Your task to perform on an android device: turn on the 12-hour format for clock Image 0: 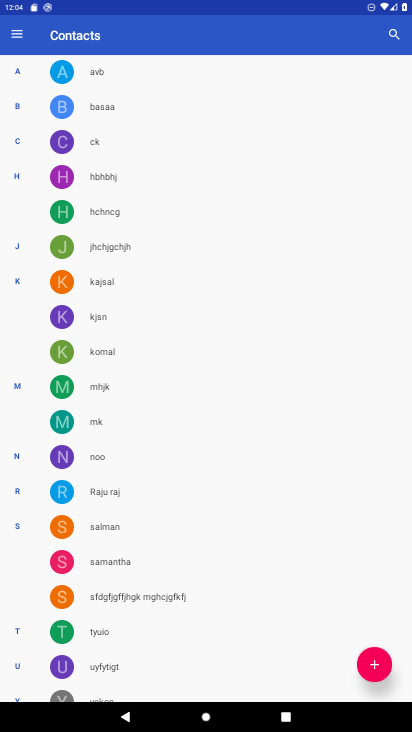
Step 0: press home button
Your task to perform on an android device: turn on the 12-hour format for clock Image 1: 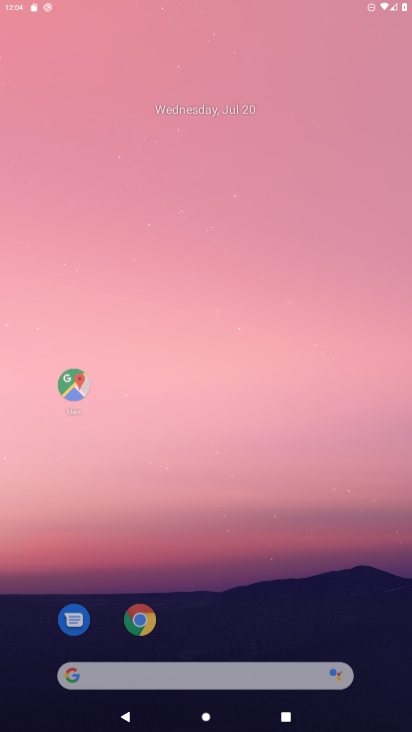
Step 1: drag from (316, 465) to (366, 28)
Your task to perform on an android device: turn on the 12-hour format for clock Image 2: 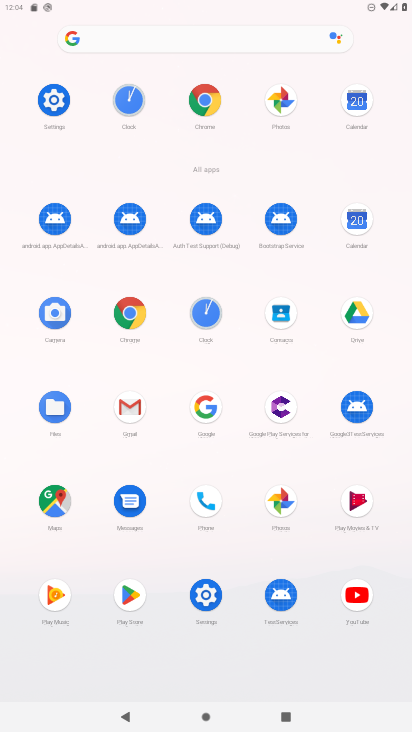
Step 2: click (198, 303)
Your task to perform on an android device: turn on the 12-hour format for clock Image 3: 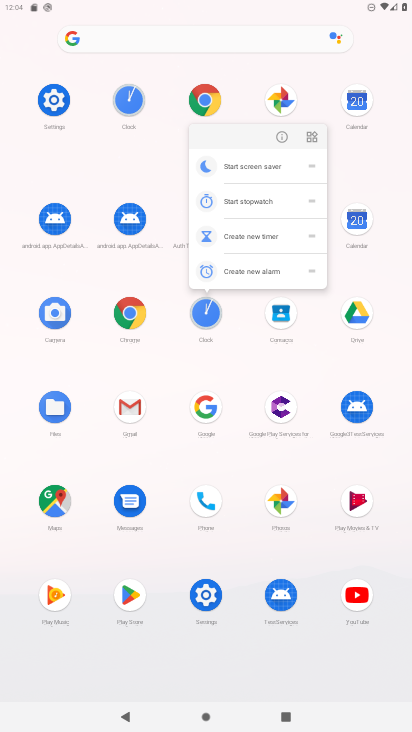
Step 3: click (289, 140)
Your task to perform on an android device: turn on the 12-hour format for clock Image 4: 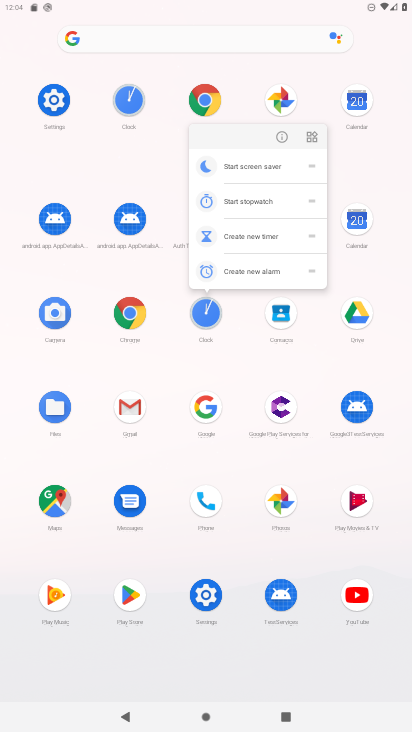
Step 4: click (284, 133)
Your task to perform on an android device: turn on the 12-hour format for clock Image 5: 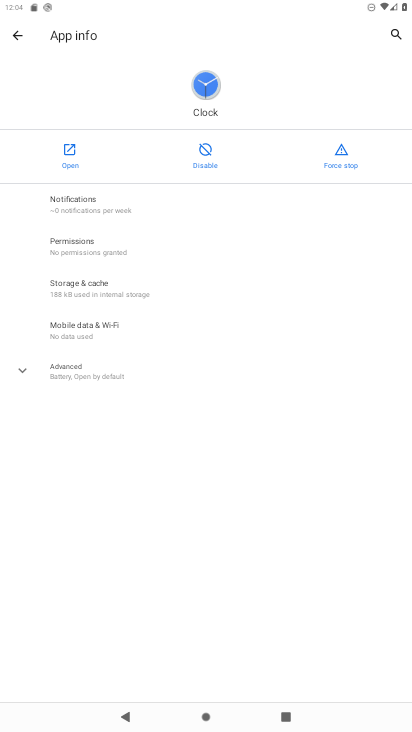
Step 5: drag from (166, 539) to (170, 201)
Your task to perform on an android device: turn on the 12-hour format for clock Image 6: 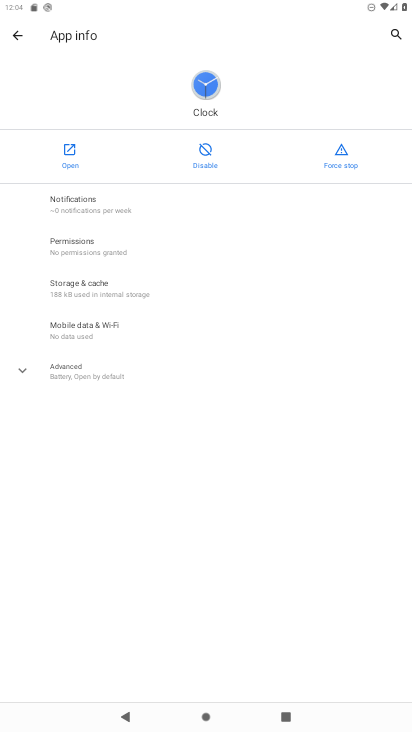
Step 6: click (62, 151)
Your task to perform on an android device: turn on the 12-hour format for clock Image 7: 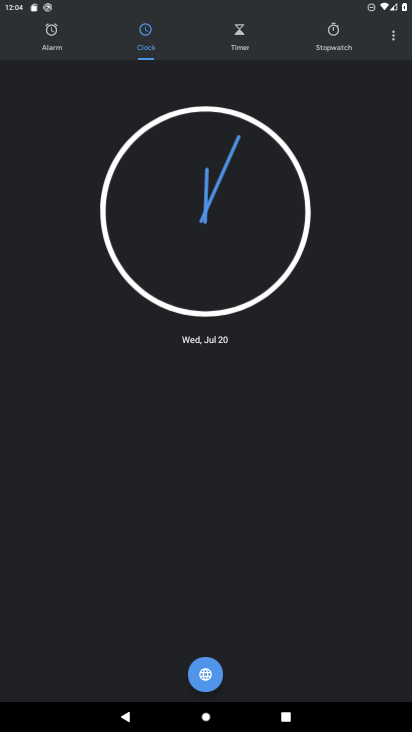
Step 7: drag from (278, 639) to (314, 345)
Your task to perform on an android device: turn on the 12-hour format for clock Image 8: 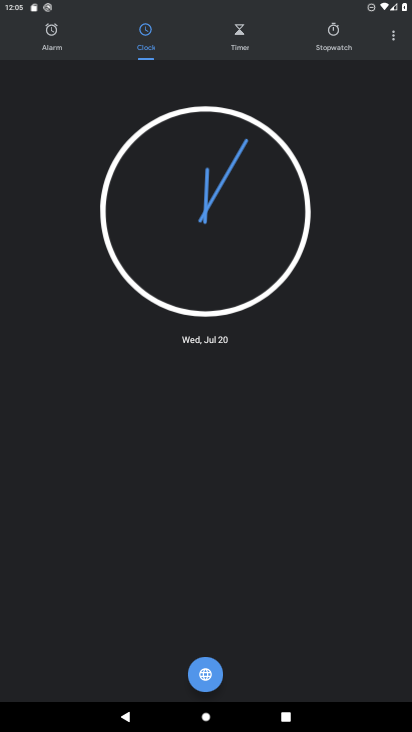
Step 8: drag from (351, 619) to (410, 14)
Your task to perform on an android device: turn on the 12-hour format for clock Image 9: 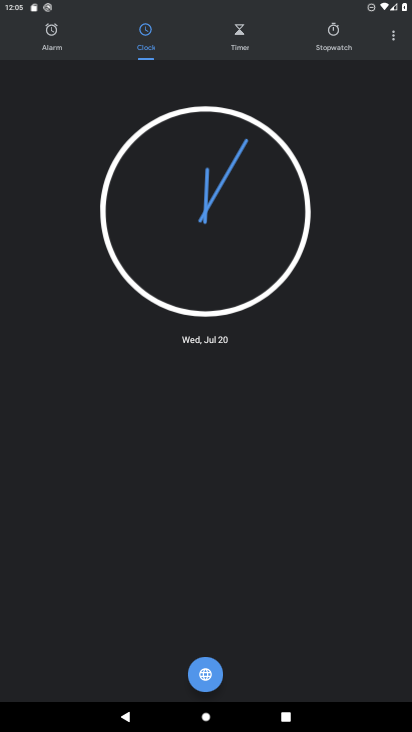
Step 9: click (389, 41)
Your task to perform on an android device: turn on the 12-hour format for clock Image 10: 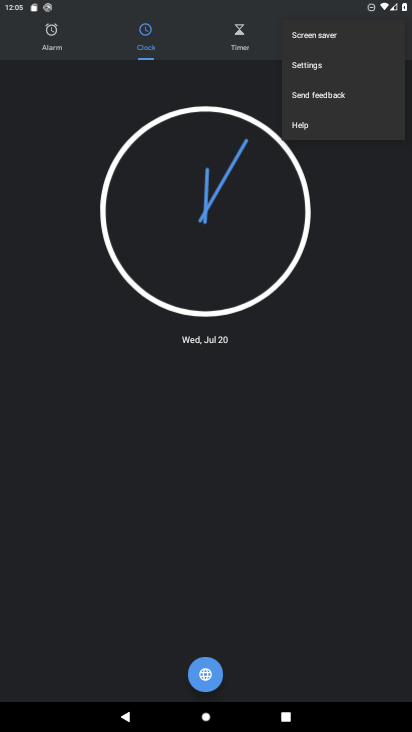
Step 10: click (319, 68)
Your task to perform on an android device: turn on the 12-hour format for clock Image 11: 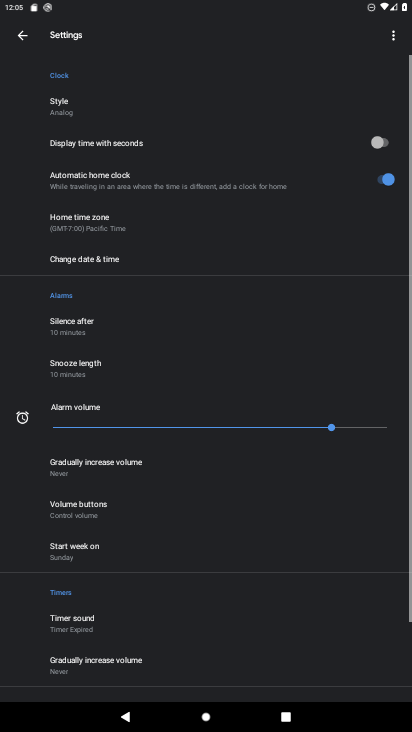
Step 11: drag from (233, 574) to (318, 134)
Your task to perform on an android device: turn on the 12-hour format for clock Image 12: 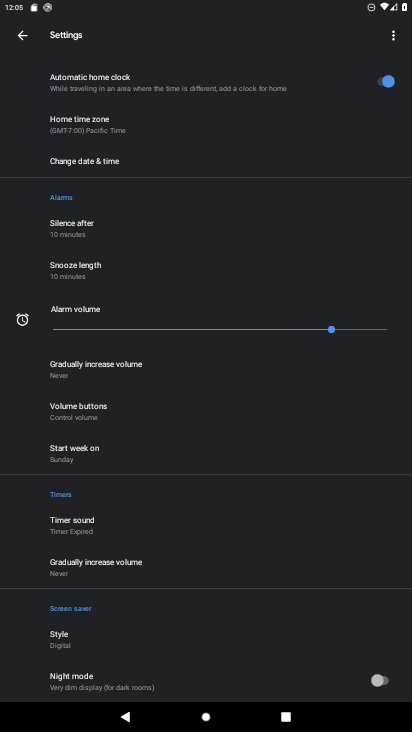
Step 12: click (193, 171)
Your task to perform on an android device: turn on the 12-hour format for clock Image 13: 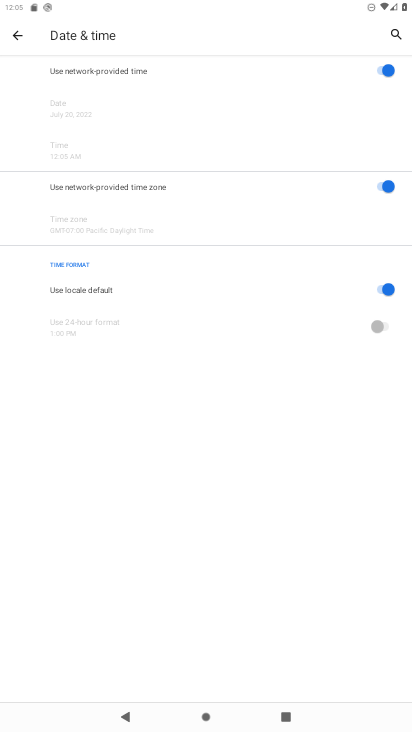
Step 13: task complete